Your task to perform on an android device: toggle translation in the chrome app Image 0: 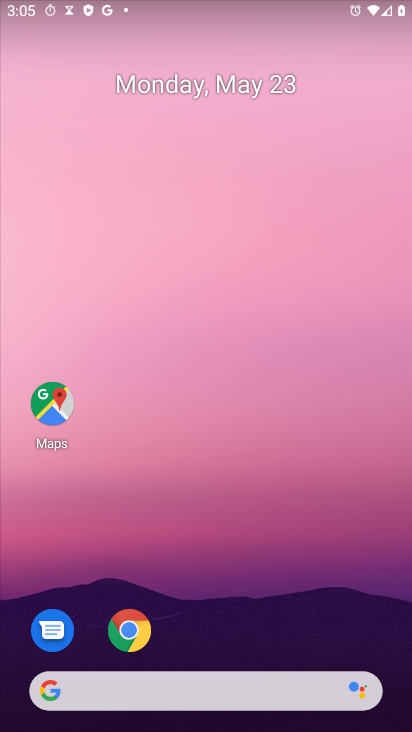
Step 0: drag from (211, 569) to (264, 53)
Your task to perform on an android device: toggle translation in the chrome app Image 1: 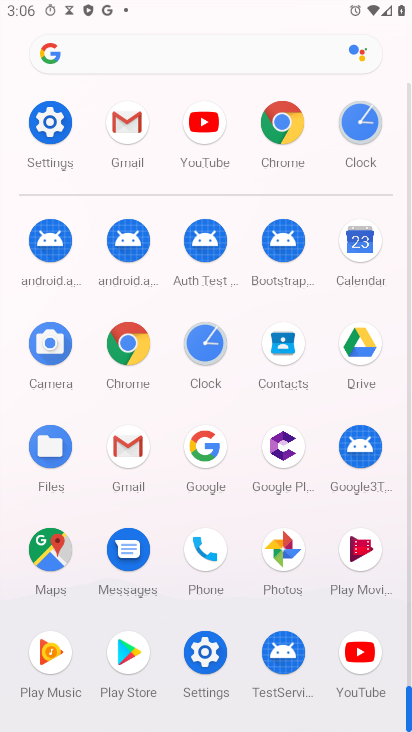
Step 1: click (291, 114)
Your task to perform on an android device: toggle translation in the chrome app Image 2: 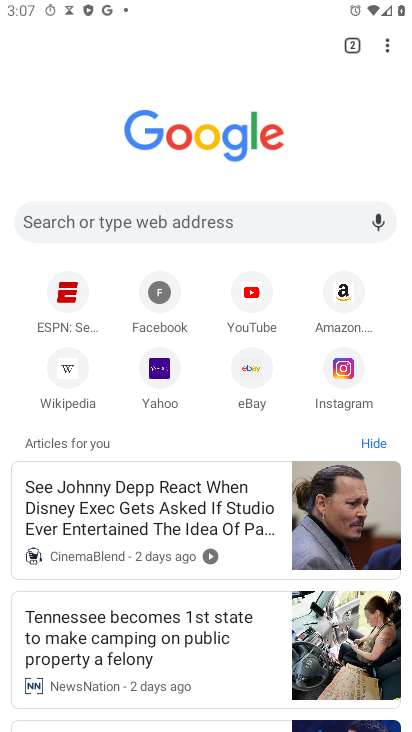
Step 2: drag from (388, 54) to (272, 368)
Your task to perform on an android device: toggle translation in the chrome app Image 3: 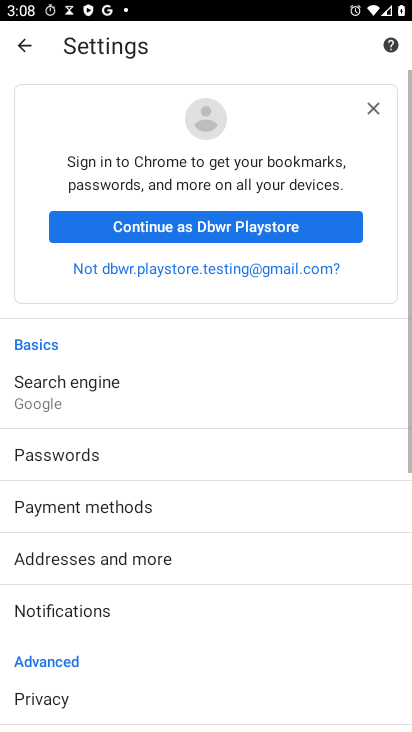
Step 3: drag from (258, 592) to (287, 209)
Your task to perform on an android device: toggle translation in the chrome app Image 4: 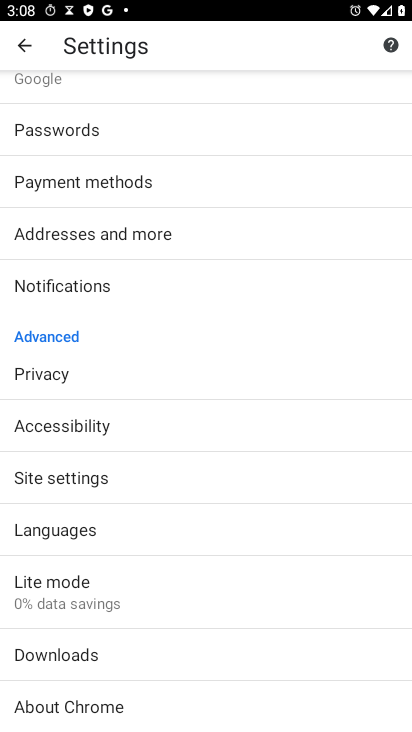
Step 4: click (88, 527)
Your task to perform on an android device: toggle translation in the chrome app Image 5: 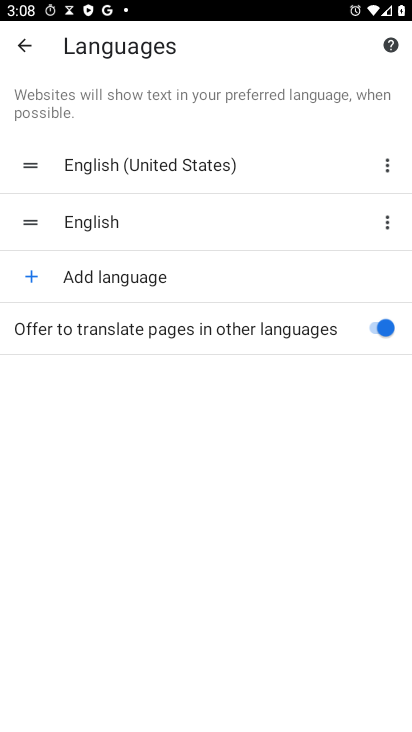
Step 5: click (381, 336)
Your task to perform on an android device: toggle translation in the chrome app Image 6: 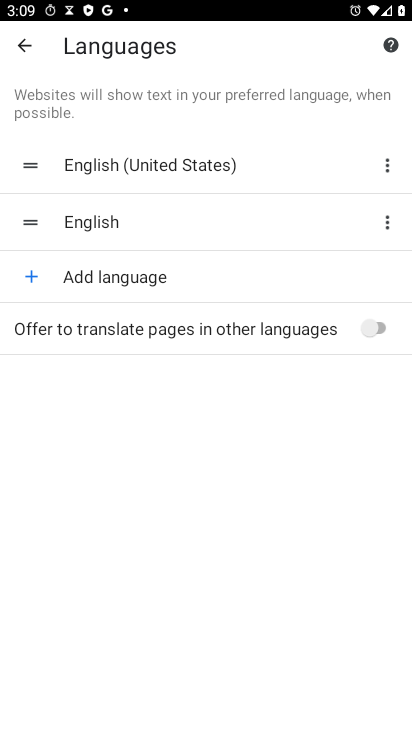
Step 6: task complete